Your task to perform on an android device: change alarm snooze length Image 0: 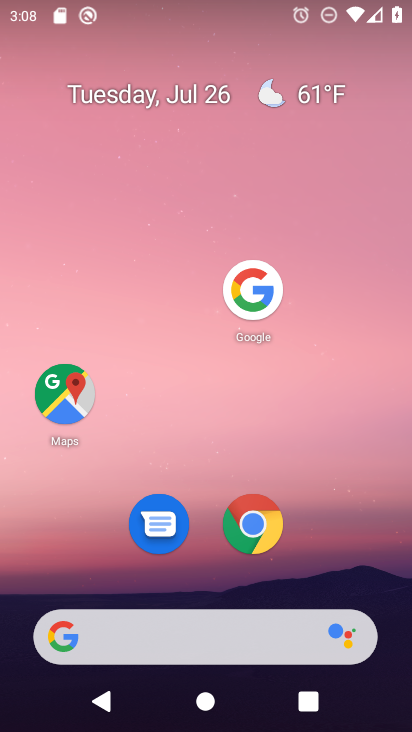
Step 0: drag from (145, 641) to (269, 125)
Your task to perform on an android device: change alarm snooze length Image 1: 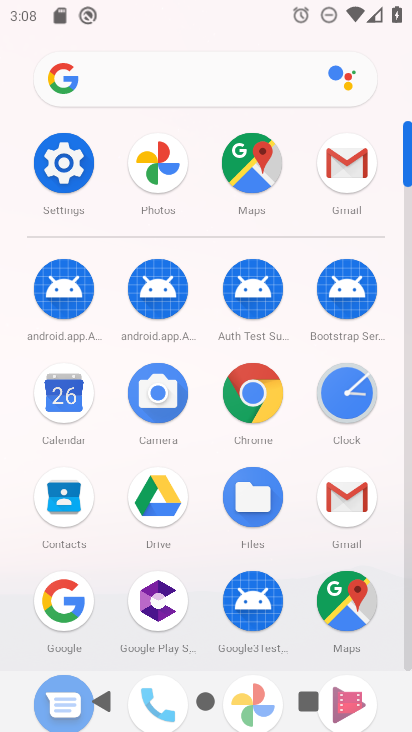
Step 1: click (346, 396)
Your task to perform on an android device: change alarm snooze length Image 2: 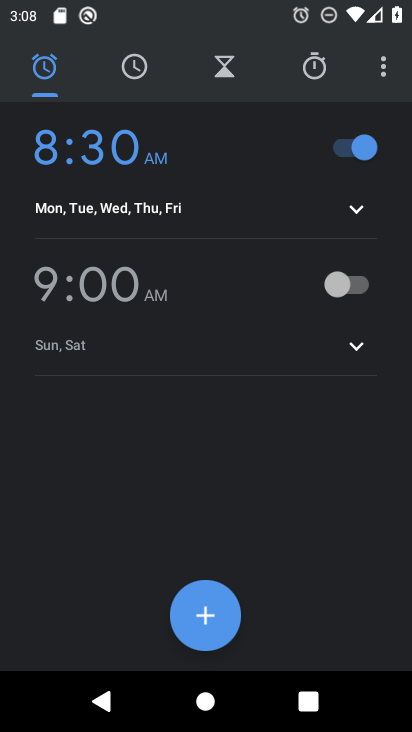
Step 2: click (389, 75)
Your task to perform on an android device: change alarm snooze length Image 3: 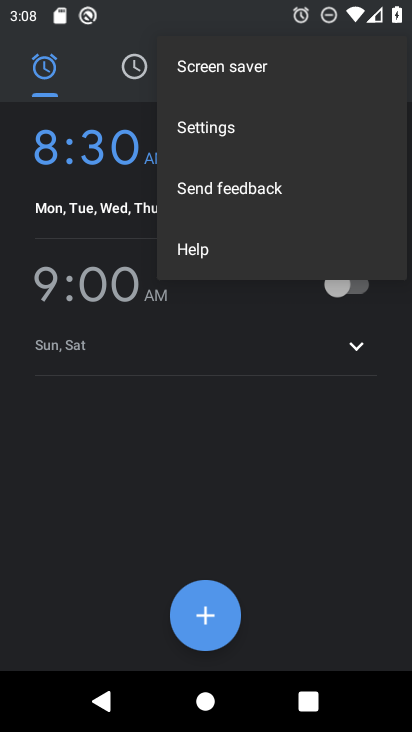
Step 3: click (230, 128)
Your task to perform on an android device: change alarm snooze length Image 4: 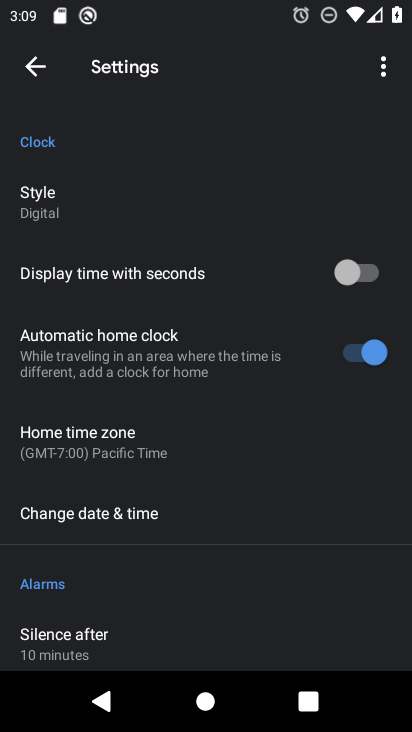
Step 4: drag from (226, 571) to (333, 92)
Your task to perform on an android device: change alarm snooze length Image 5: 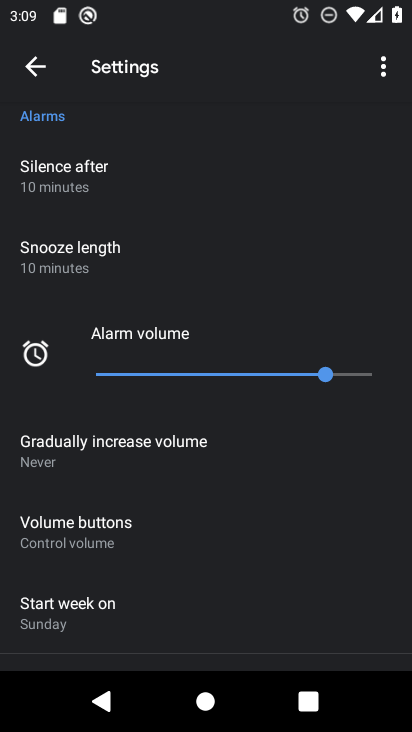
Step 5: drag from (178, 548) to (283, 103)
Your task to perform on an android device: change alarm snooze length Image 6: 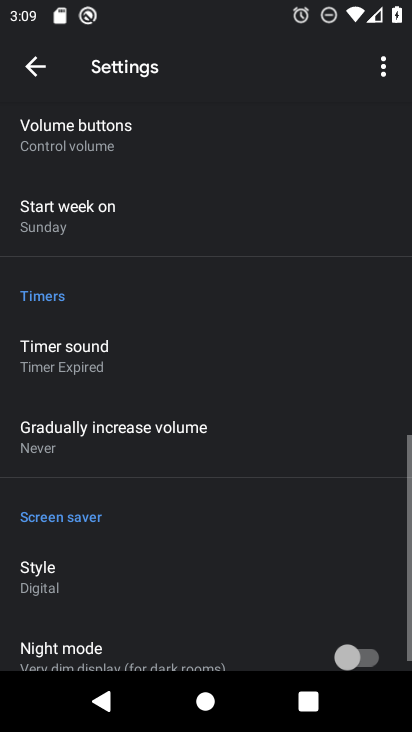
Step 6: drag from (249, 180) to (252, 552)
Your task to perform on an android device: change alarm snooze length Image 7: 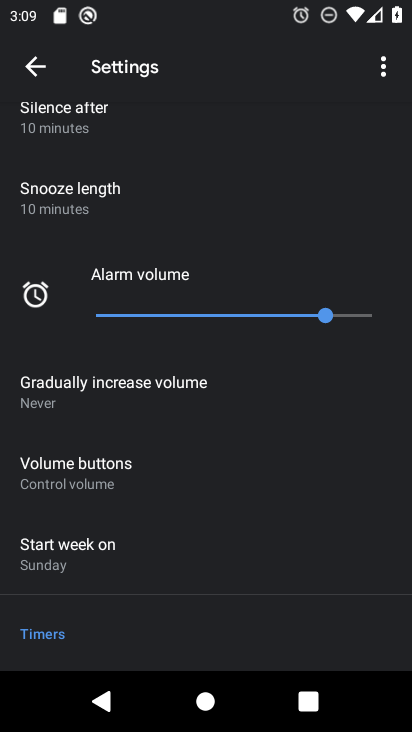
Step 7: click (90, 200)
Your task to perform on an android device: change alarm snooze length Image 8: 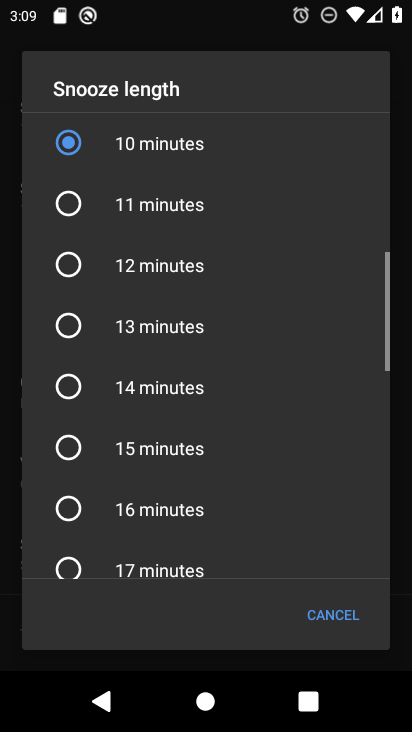
Step 8: click (70, 453)
Your task to perform on an android device: change alarm snooze length Image 9: 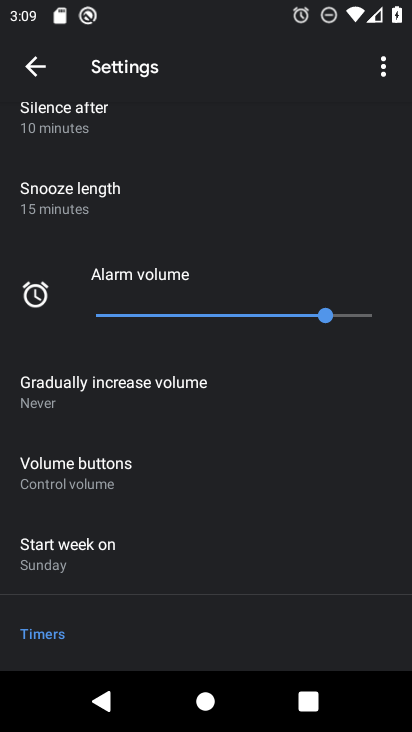
Step 9: task complete